Your task to perform on an android device: turn pop-ups on in chrome Image 0: 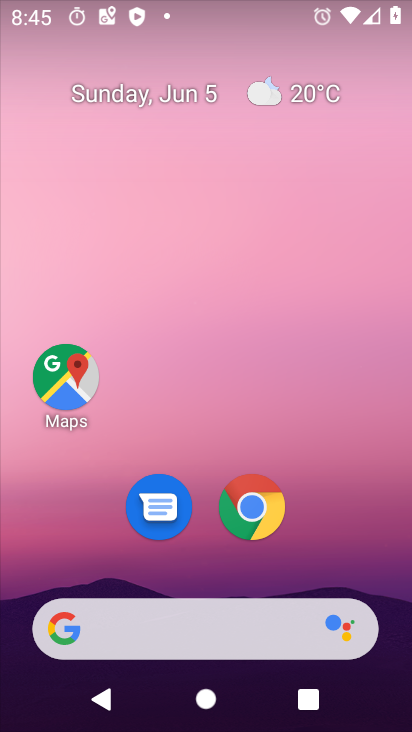
Step 0: drag from (334, 540) to (244, 36)
Your task to perform on an android device: turn pop-ups on in chrome Image 1: 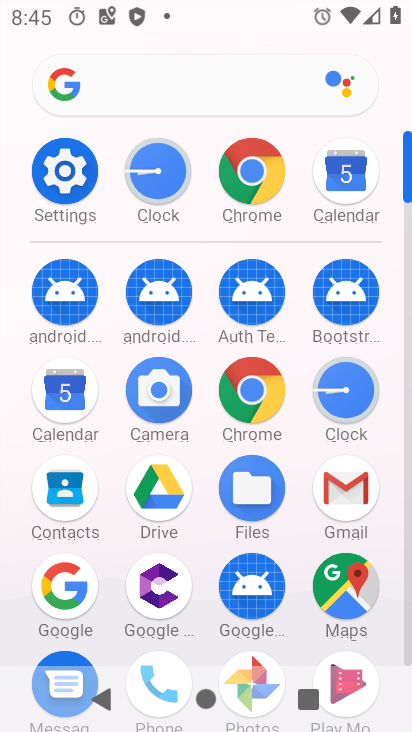
Step 1: drag from (7, 582) to (16, 239)
Your task to perform on an android device: turn pop-ups on in chrome Image 2: 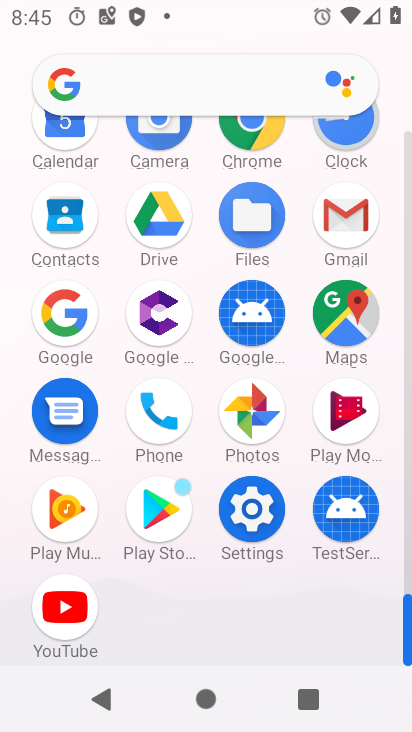
Step 2: drag from (26, 156) to (16, 303)
Your task to perform on an android device: turn pop-ups on in chrome Image 3: 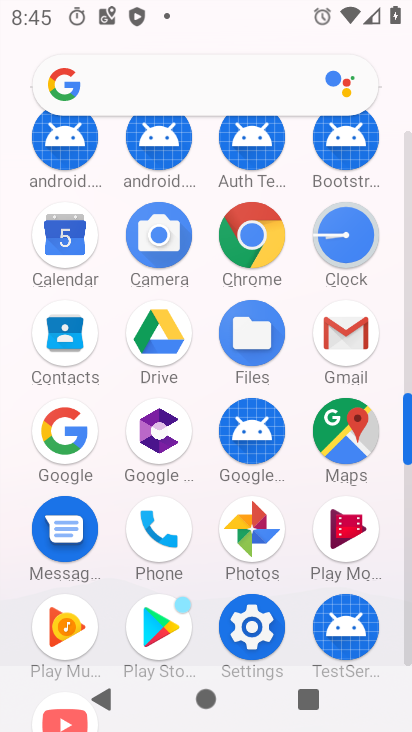
Step 3: click (252, 229)
Your task to perform on an android device: turn pop-ups on in chrome Image 4: 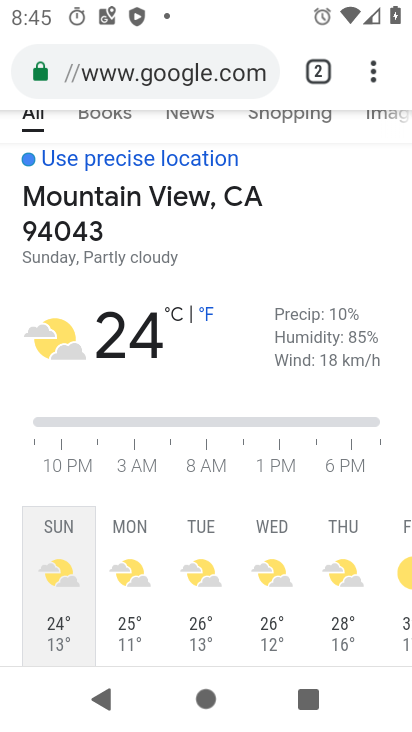
Step 4: drag from (373, 68) to (168, 494)
Your task to perform on an android device: turn pop-ups on in chrome Image 5: 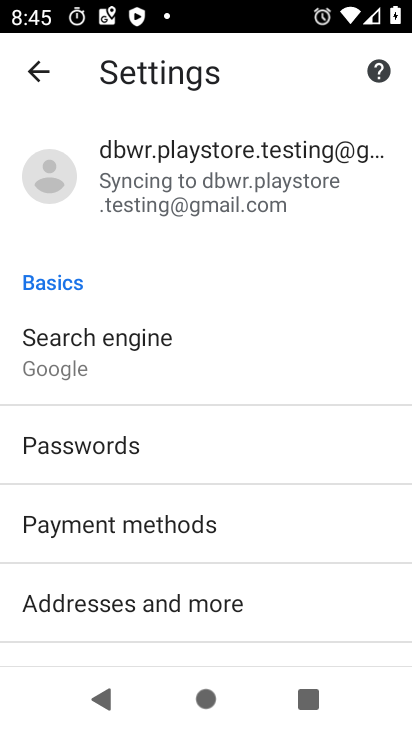
Step 5: drag from (342, 635) to (342, 205)
Your task to perform on an android device: turn pop-ups on in chrome Image 6: 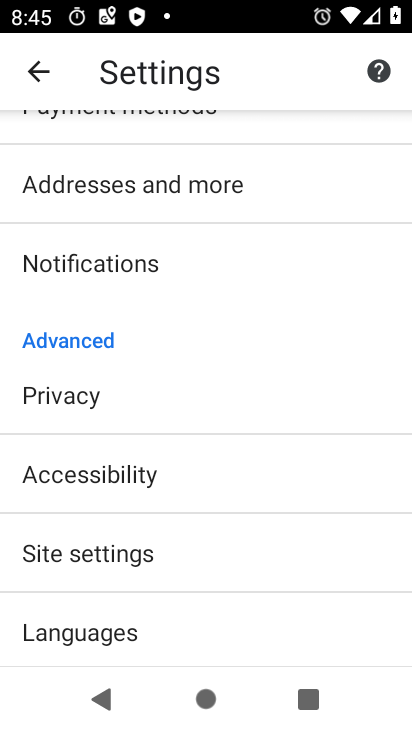
Step 6: click (150, 565)
Your task to perform on an android device: turn pop-ups on in chrome Image 7: 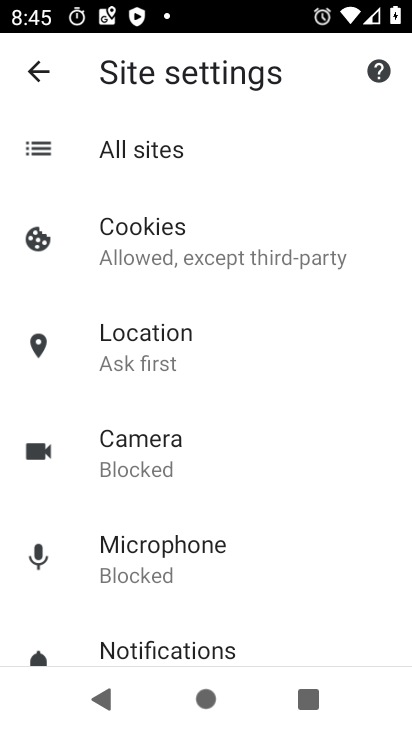
Step 7: drag from (272, 483) to (230, 160)
Your task to perform on an android device: turn pop-ups on in chrome Image 8: 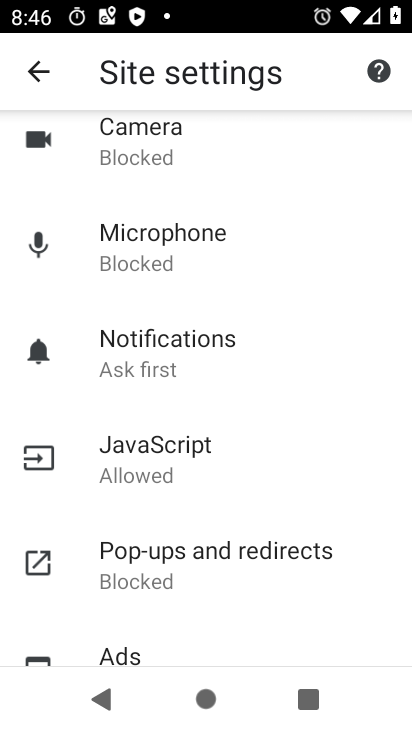
Step 8: click (227, 561)
Your task to perform on an android device: turn pop-ups on in chrome Image 9: 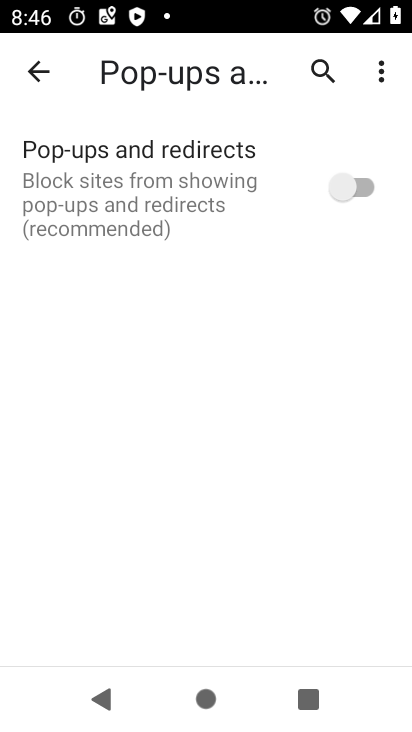
Step 9: click (363, 180)
Your task to perform on an android device: turn pop-ups on in chrome Image 10: 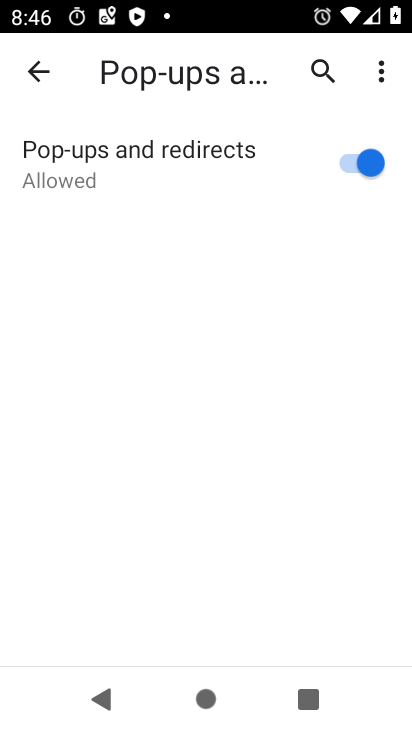
Step 10: task complete